Your task to perform on an android device: remove spam from my inbox in the gmail app Image 0: 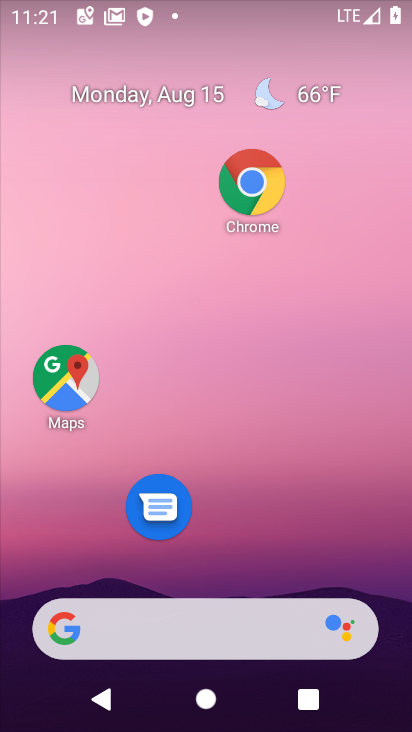
Step 0: drag from (293, 575) to (335, 53)
Your task to perform on an android device: remove spam from my inbox in the gmail app Image 1: 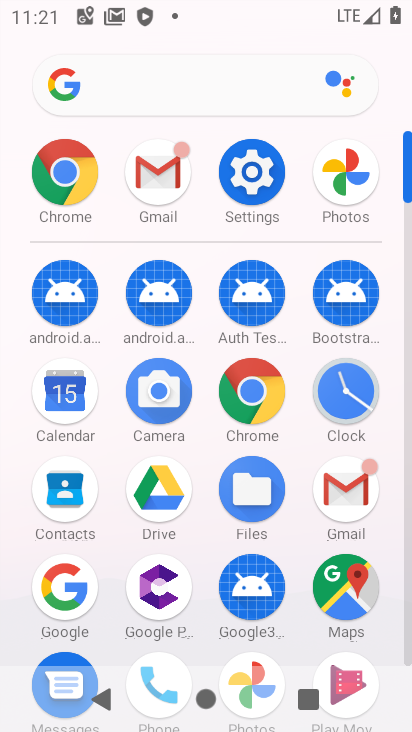
Step 1: click (172, 196)
Your task to perform on an android device: remove spam from my inbox in the gmail app Image 2: 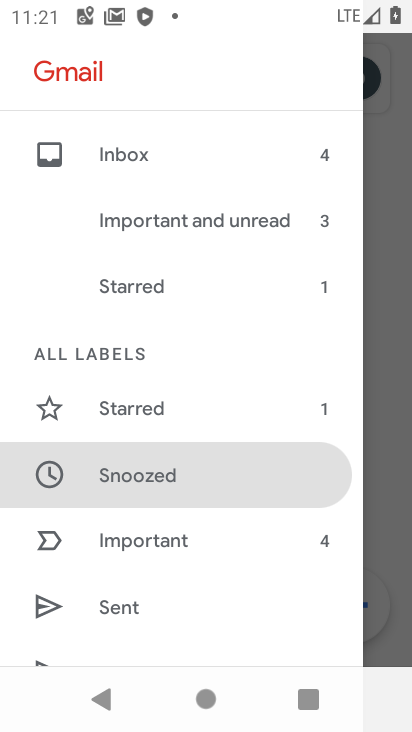
Step 2: drag from (140, 630) to (171, 131)
Your task to perform on an android device: remove spam from my inbox in the gmail app Image 3: 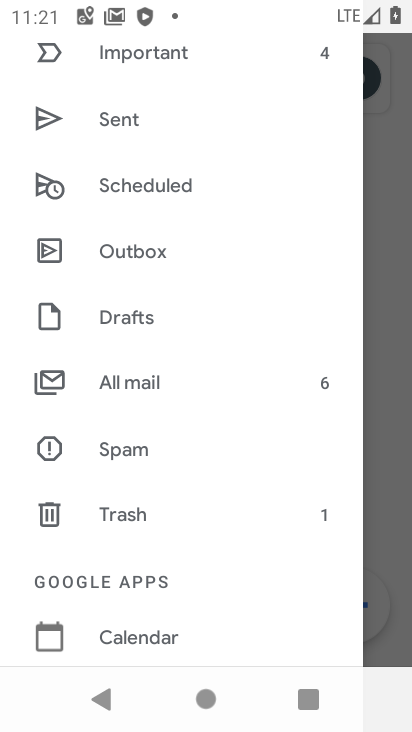
Step 3: click (155, 466)
Your task to perform on an android device: remove spam from my inbox in the gmail app Image 4: 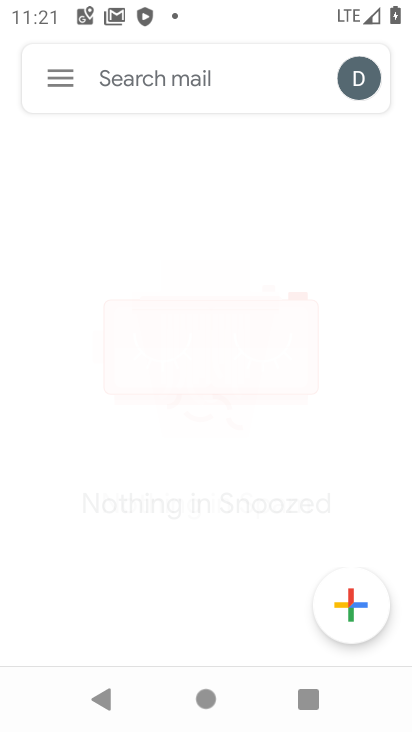
Step 4: task complete